Your task to perform on an android device: Open location settings Image 0: 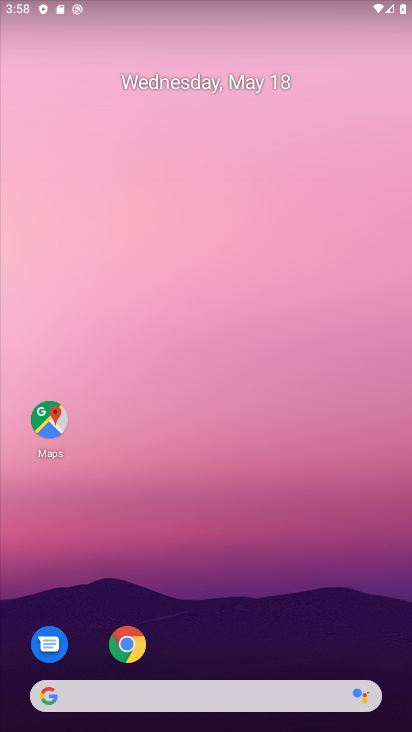
Step 0: drag from (177, 671) to (100, 120)
Your task to perform on an android device: Open location settings Image 1: 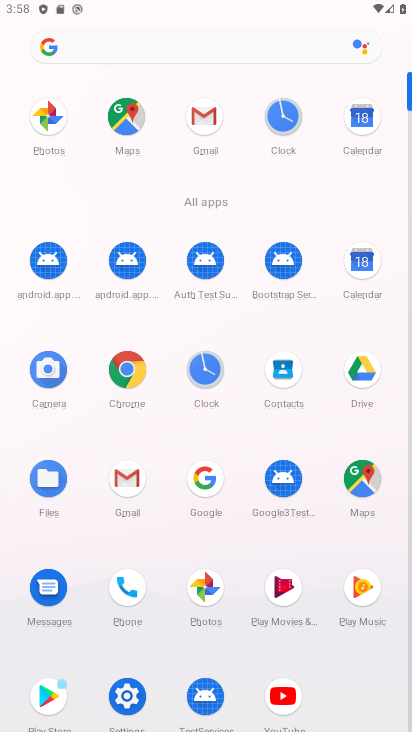
Step 1: click (129, 686)
Your task to perform on an android device: Open location settings Image 2: 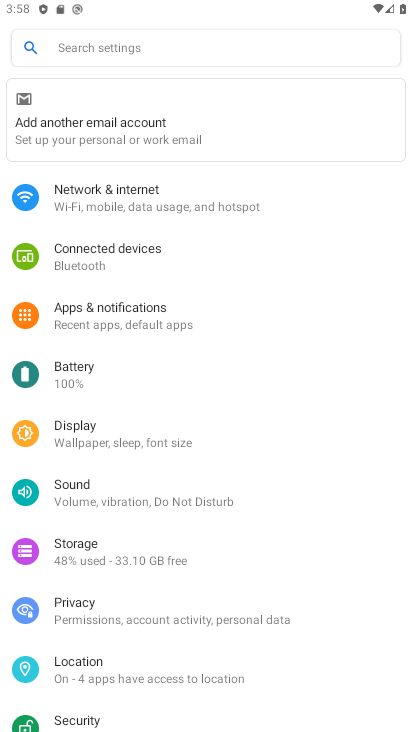
Step 2: click (129, 658)
Your task to perform on an android device: Open location settings Image 3: 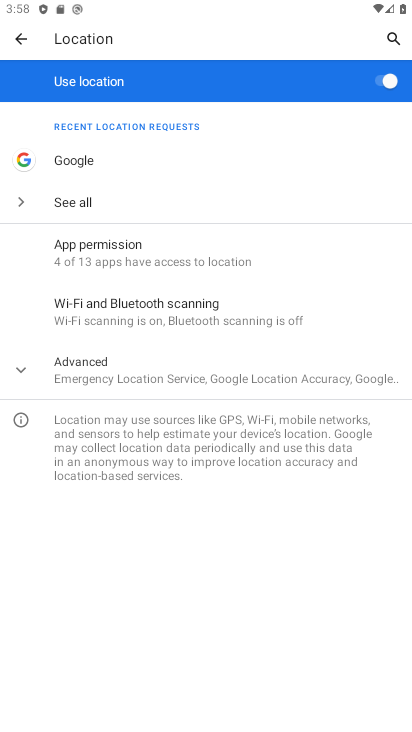
Step 3: click (90, 356)
Your task to perform on an android device: Open location settings Image 4: 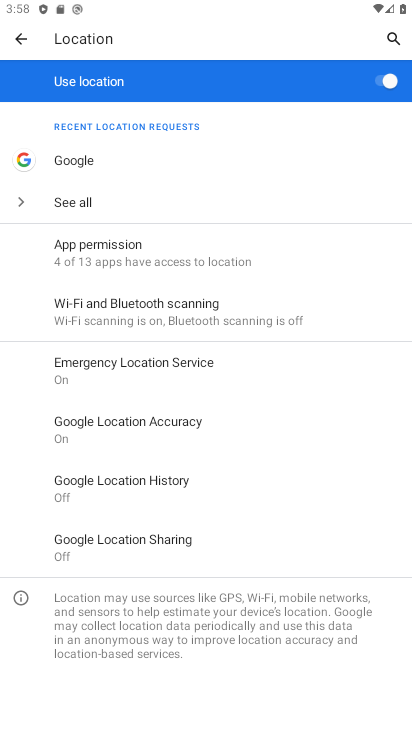
Step 4: task complete